Your task to perform on an android device: turn on the 24-hour format for clock Image 0: 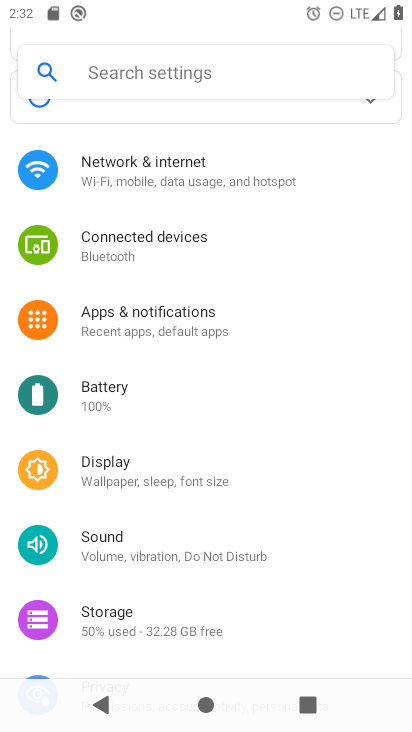
Step 0: press home button
Your task to perform on an android device: turn on the 24-hour format for clock Image 1: 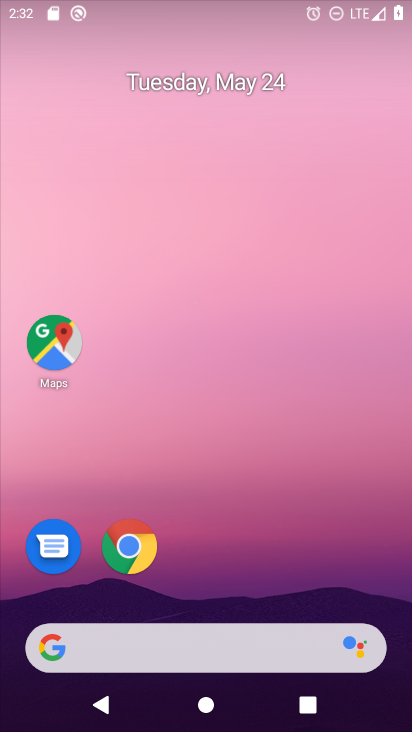
Step 1: drag from (293, 599) to (296, 8)
Your task to perform on an android device: turn on the 24-hour format for clock Image 2: 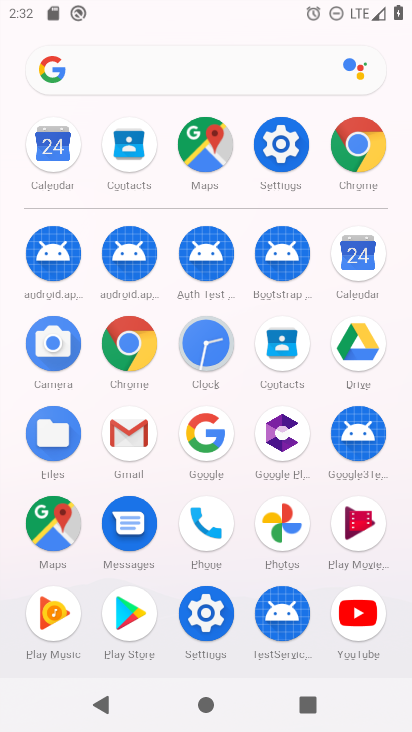
Step 2: click (212, 347)
Your task to perform on an android device: turn on the 24-hour format for clock Image 3: 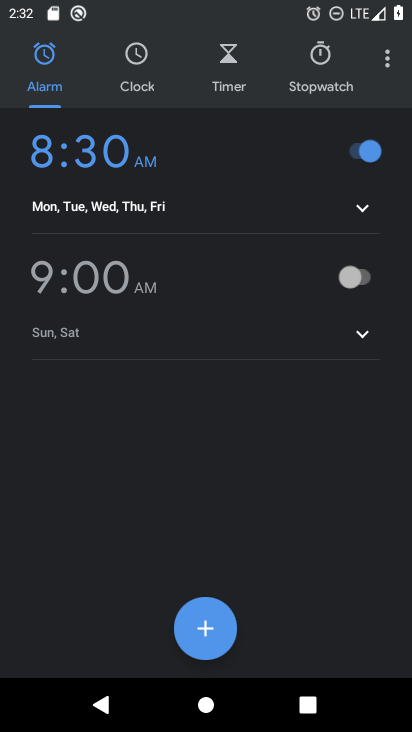
Step 3: click (394, 49)
Your task to perform on an android device: turn on the 24-hour format for clock Image 4: 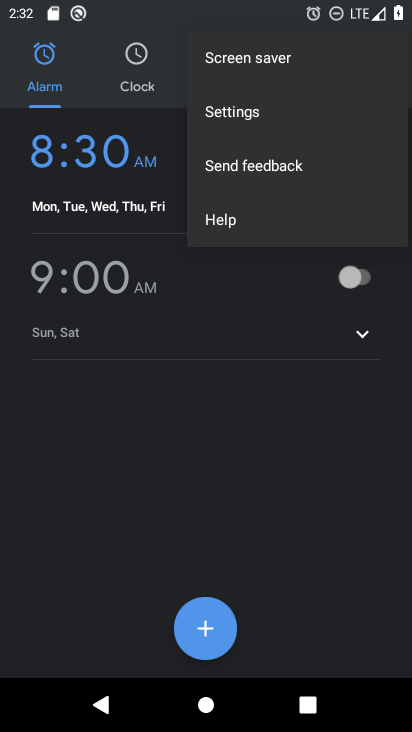
Step 4: click (250, 107)
Your task to perform on an android device: turn on the 24-hour format for clock Image 5: 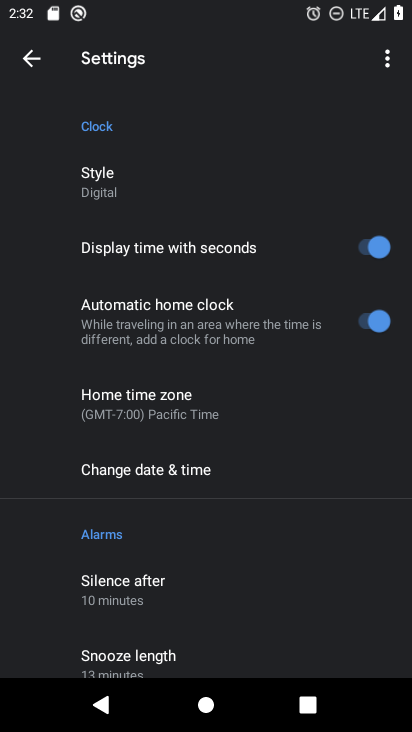
Step 5: click (196, 471)
Your task to perform on an android device: turn on the 24-hour format for clock Image 6: 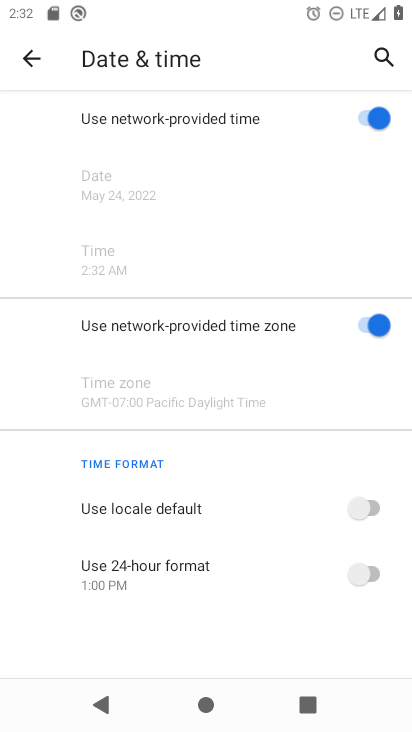
Step 6: click (373, 570)
Your task to perform on an android device: turn on the 24-hour format for clock Image 7: 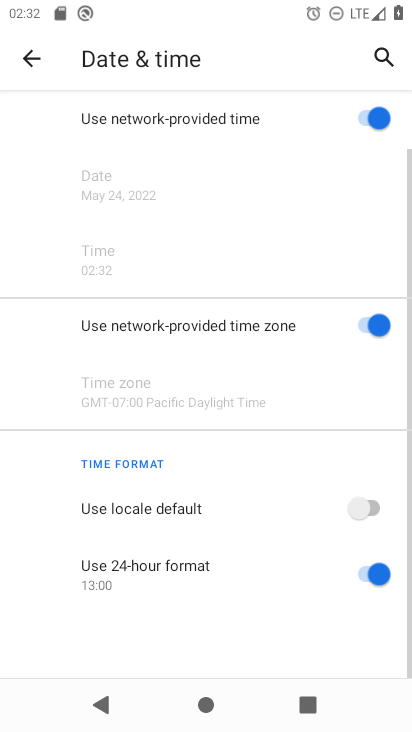
Step 7: task complete